Your task to perform on an android device: turn on improve location accuracy Image 0: 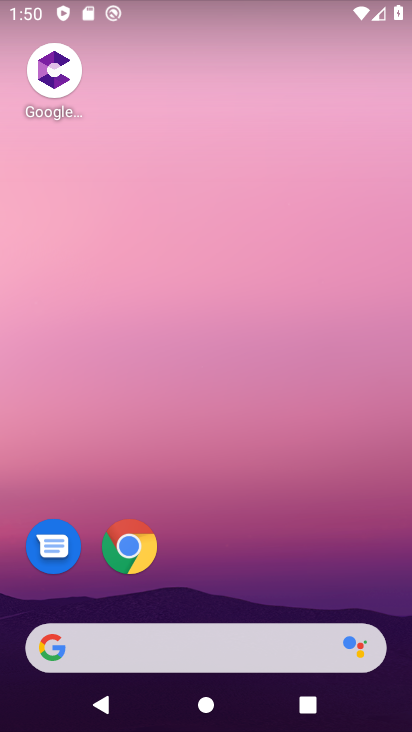
Step 0: drag from (212, 553) to (222, 216)
Your task to perform on an android device: turn on improve location accuracy Image 1: 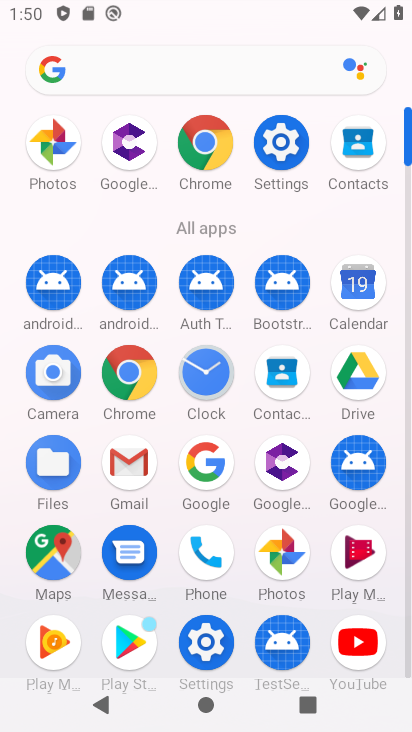
Step 1: click (284, 158)
Your task to perform on an android device: turn on improve location accuracy Image 2: 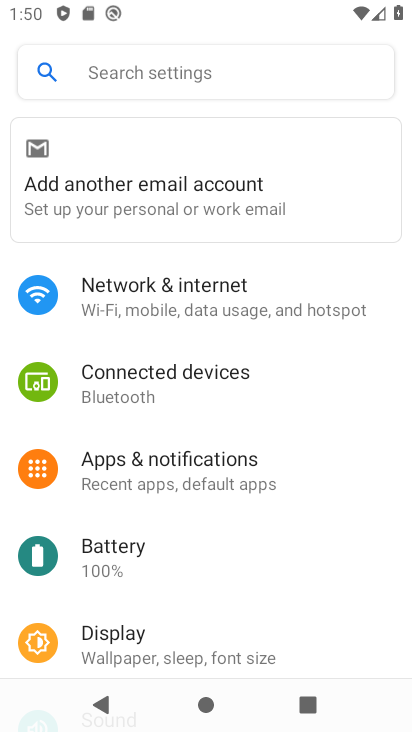
Step 2: drag from (161, 427) to (144, 147)
Your task to perform on an android device: turn on improve location accuracy Image 3: 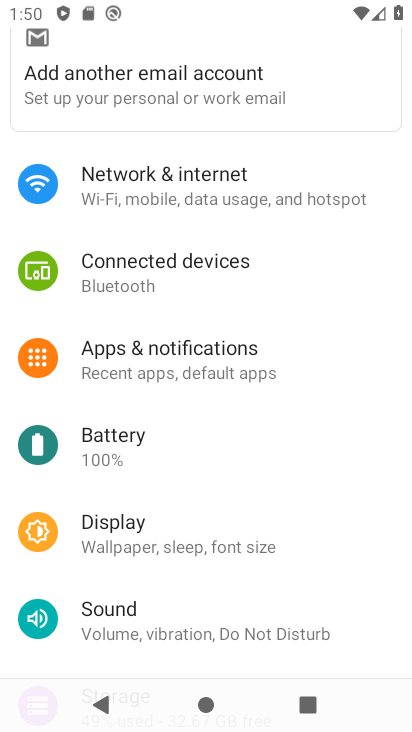
Step 3: drag from (139, 558) to (108, 171)
Your task to perform on an android device: turn on improve location accuracy Image 4: 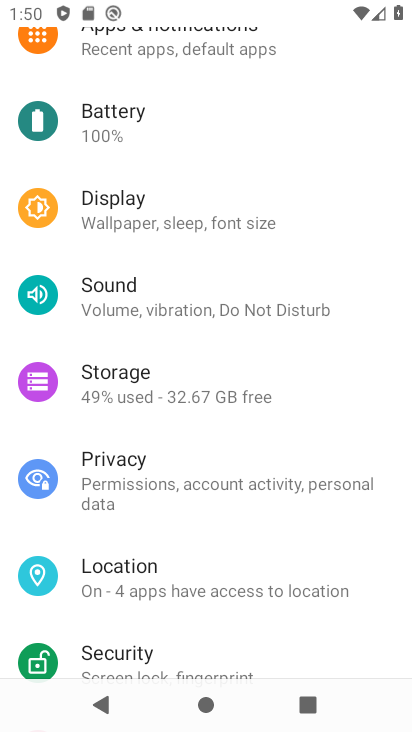
Step 4: click (149, 577)
Your task to perform on an android device: turn on improve location accuracy Image 5: 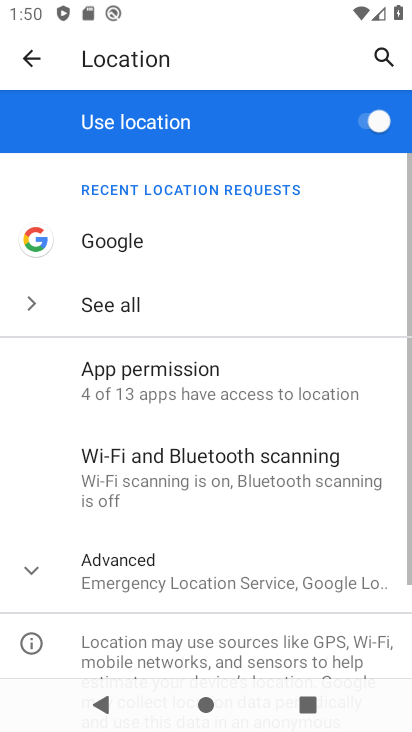
Step 5: click (176, 555)
Your task to perform on an android device: turn on improve location accuracy Image 6: 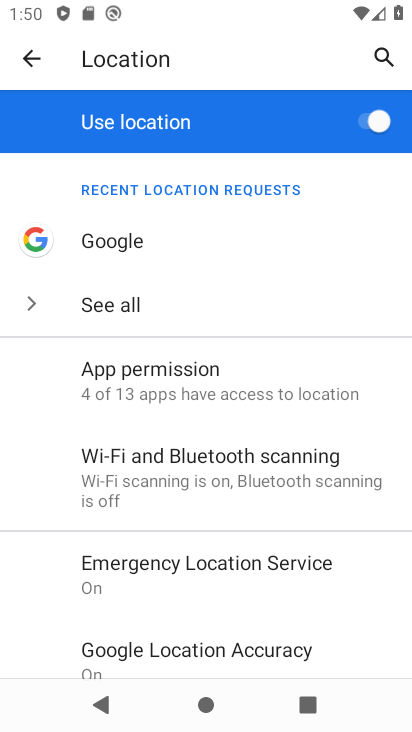
Step 6: click (165, 637)
Your task to perform on an android device: turn on improve location accuracy Image 7: 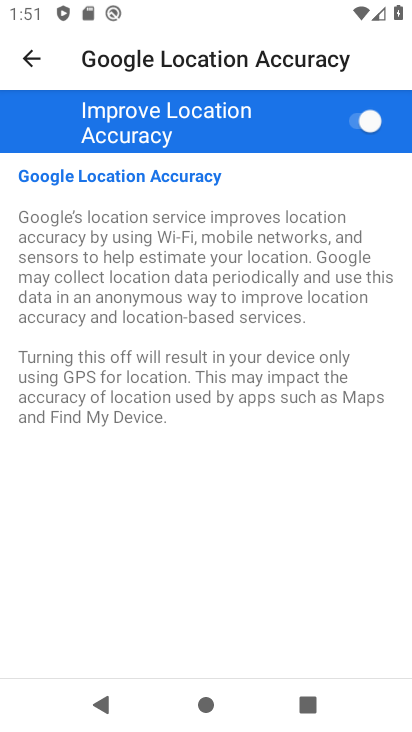
Step 7: task complete